Your task to perform on an android device: snooze an email in the gmail app Image 0: 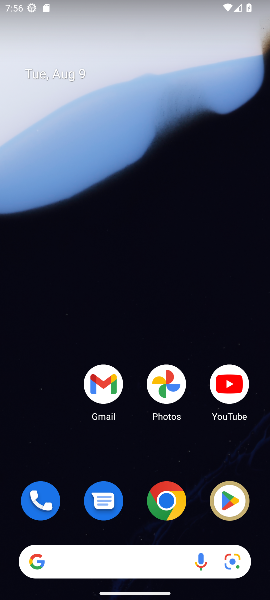
Step 0: click (105, 386)
Your task to perform on an android device: snooze an email in the gmail app Image 1: 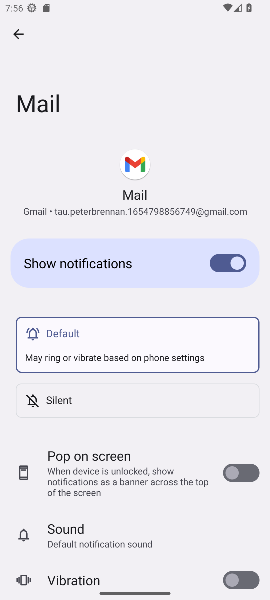
Step 1: click (15, 29)
Your task to perform on an android device: snooze an email in the gmail app Image 2: 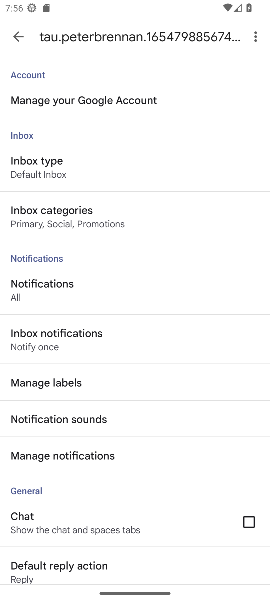
Step 2: click (15, 34)
Your task to perform on an android device: snooze an email in the gmail app Image 3: 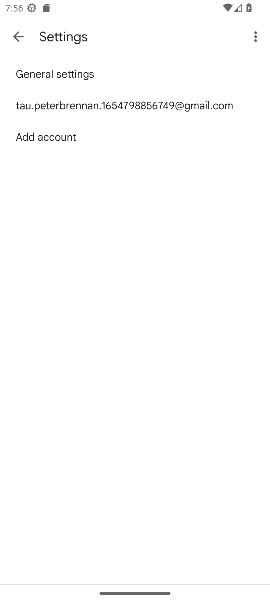
Step 3: click (15, 34)
Your task to perform on an android device: snooze an email in the gmail app Image 4: 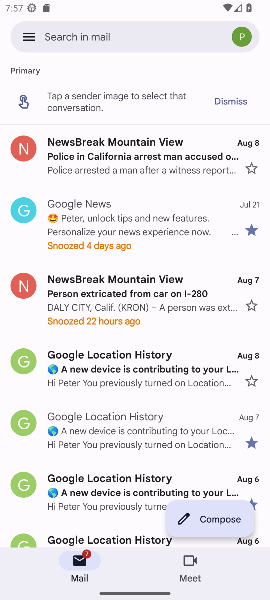
Step 4: click (115, 149)
Your task to perform on an android device: snooze an email in the gmail app Image 5: 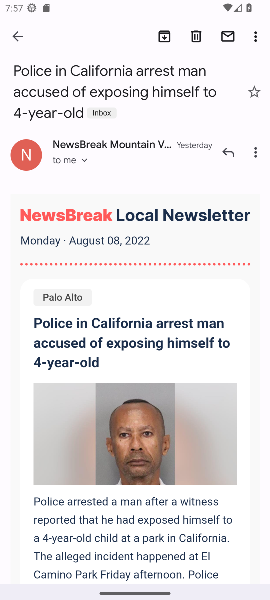
Step 5: click (255, 35)
Your task to perform on an android device: snooze an email in the gmail app Image 6: 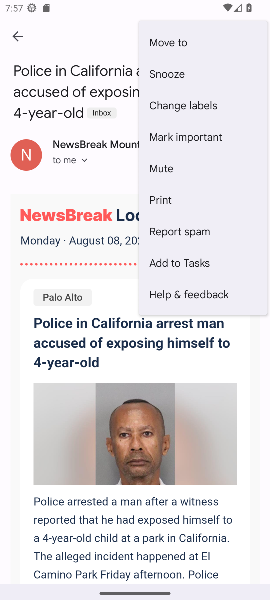
Step 6: click (168, 81)
Your task to perform on an android device: snooze an email in the gmail app Image 7: 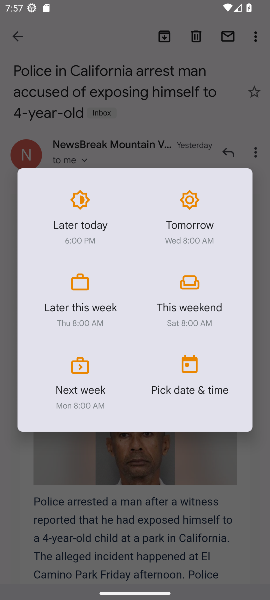
Step 7: click (78, 209)
Your task to perform on an android device: snooze an email in the gmail app Image 8: 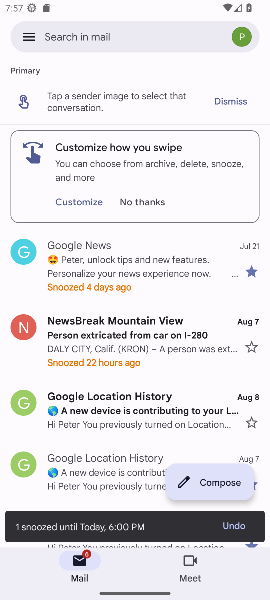
Step 8: task complete